Your task to perform on an android device: delete a single message in the gmail app Image 0: 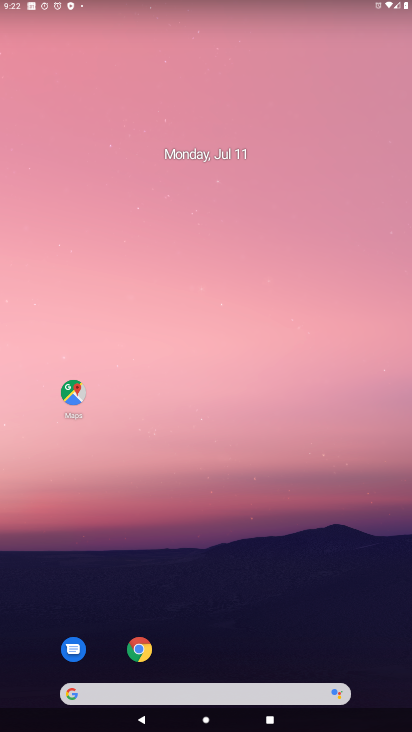
Step 0: drag from (215, 680) to (225, 263)
Your task to perform on an android device: delete a single message in the gmail app Image 1: 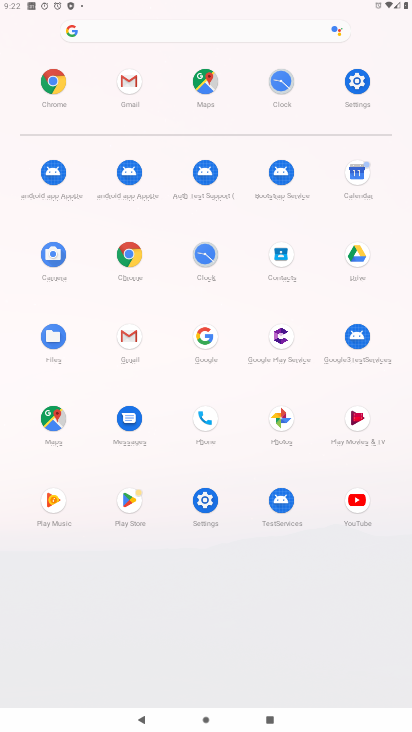
Step 1: click (128, 333)
Your task to perform on an android device: delete a single message in the gmail app Image 2: 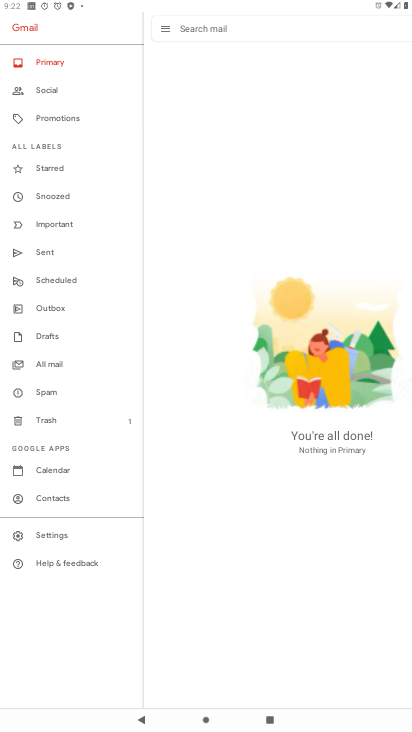
Step 2: click (52, 366)
Your task to perform on an android device: delete a single message in the gmail app Image 3: 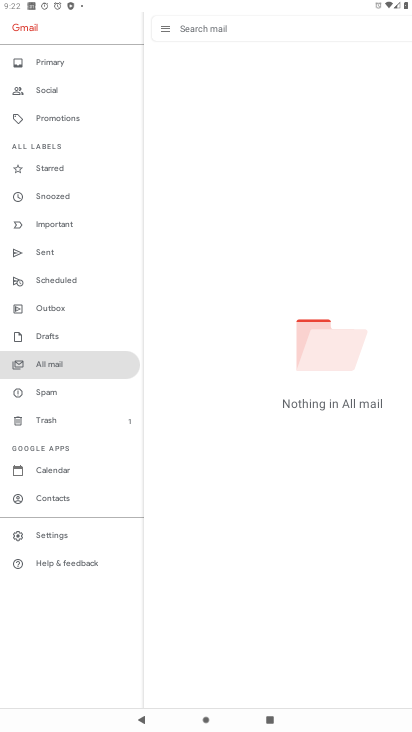
Step 3: click (57, 57)
Your task to perform on an android device: delete a single message in the gmail app Image 4: 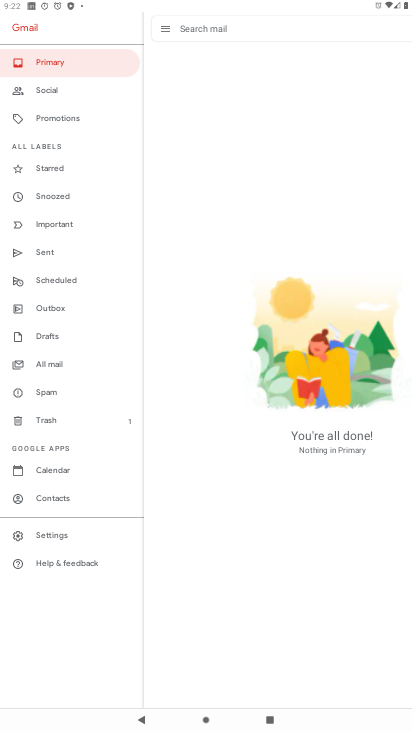
Step 4: task complete